Your task to perform on an android device: turn on translation in the chrome app Image 0: 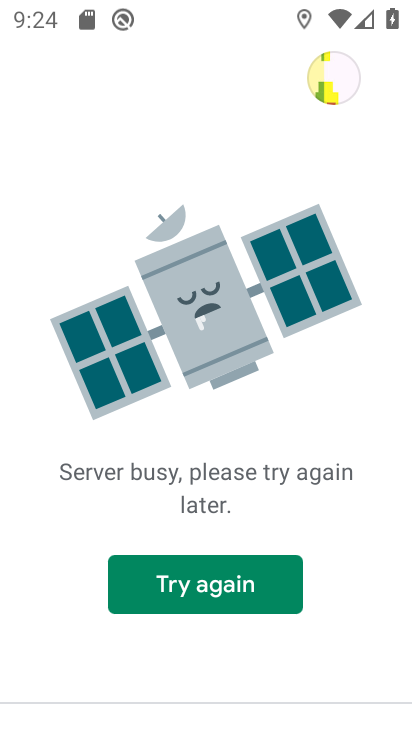
Step 0: press home button
Your task to perform on an android device: turn on translation in the chrome app Image 1: 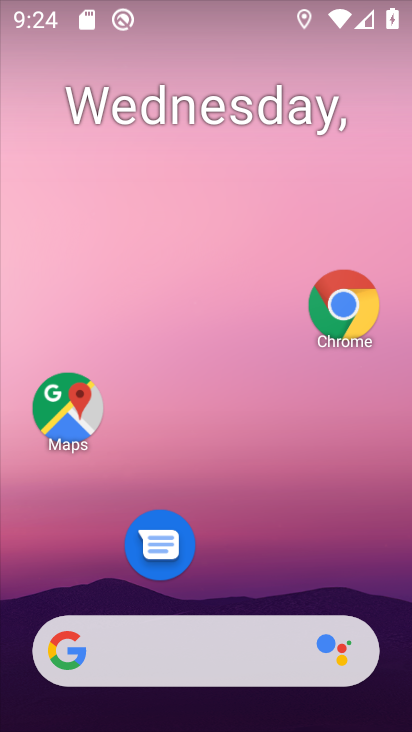
Step 1: drag from (282, 502) to (295, 173)
Your task to perform on an android device: turn on translation in the chrome app Image 2: 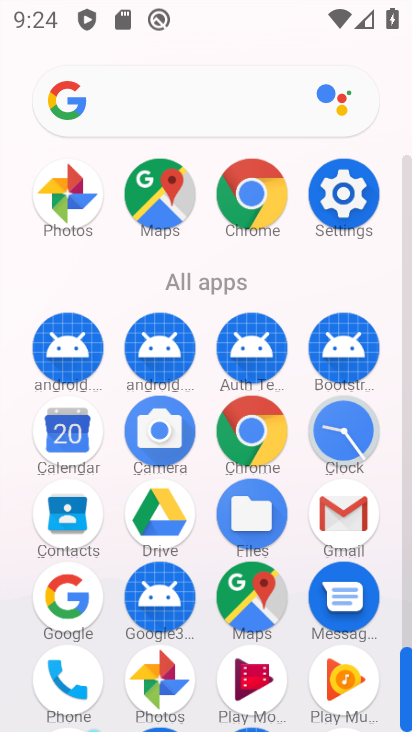
Step 2: click (259, 201)
Your task to perform on an android device: turn on translation in the chrome app Image 3: 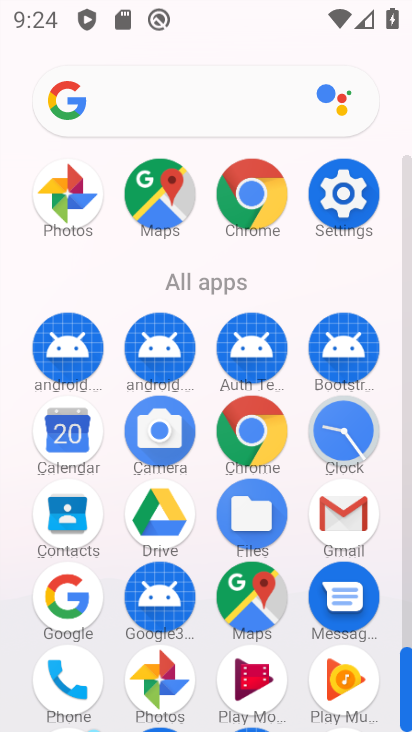
Step 3: click (259, 201)
Your task to perform on an android device: turn on translation in the chrome app Image 4: 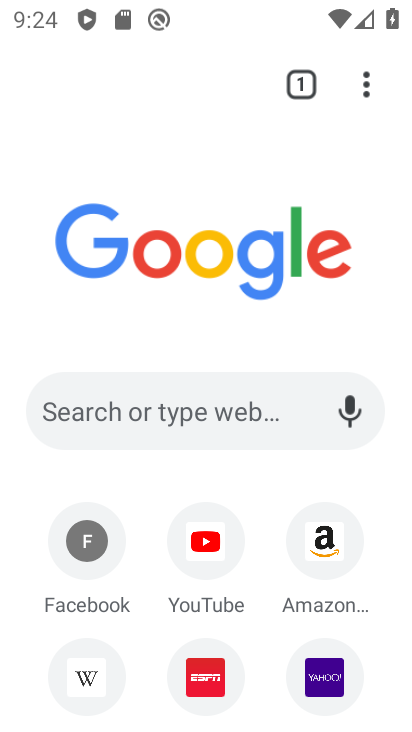
Step 4: click (258, 207)
Your task to perform on an android device: turn on translation in the chrome app Image 5: 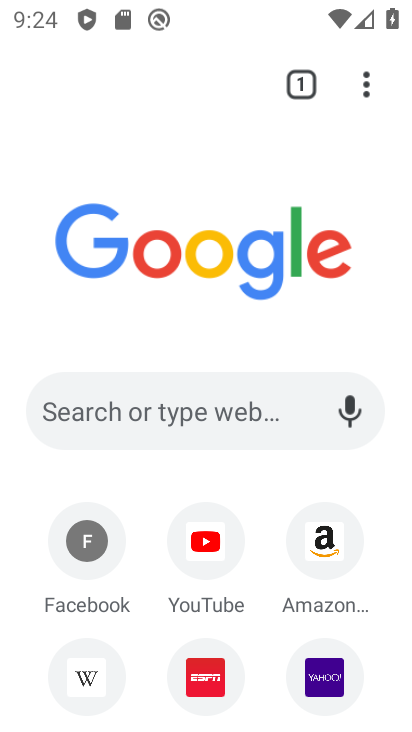
Step 5: click (377, 79)
Your task to perform on an android device: turn on translation in the chrome app Image 6: 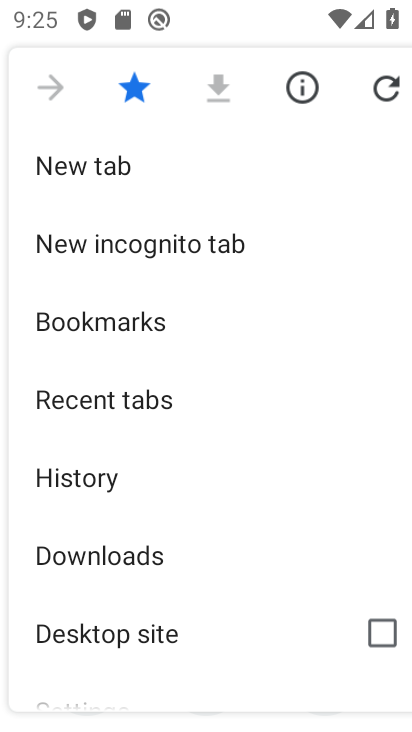
Step 6: task complete